Your task to perform on an android device: allow cookies in the chrome app Image 0: 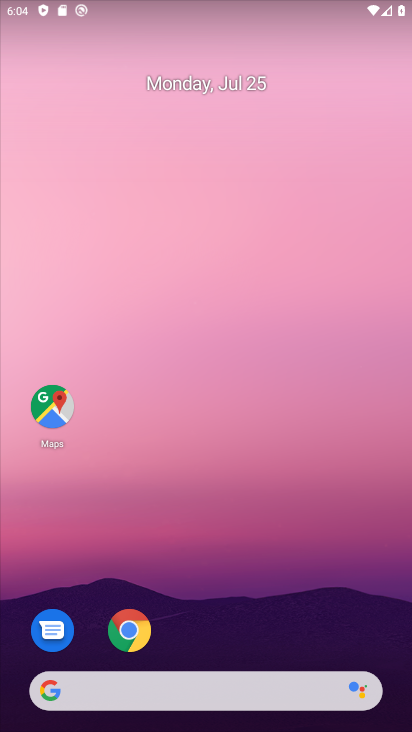
Step 0: click (126, 630)
Your task to perform on an android device: allow cookies in the chrome app Image 1: 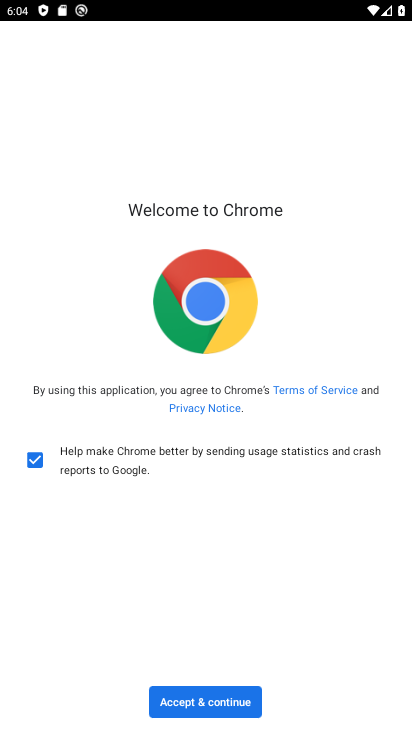
Step 1: click (190, 695)
Your task to perform on an android device: allow cookies in the chrome app Image 2: 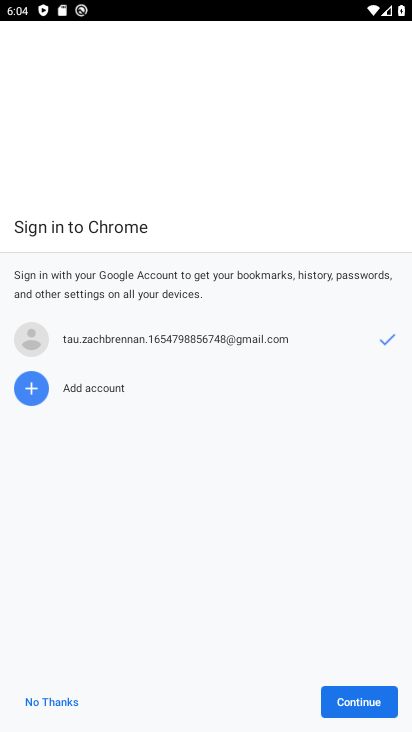
Step 2: click (342, 696)
Your task to perform on an android device: allow cookies in the chrome app Image 3: 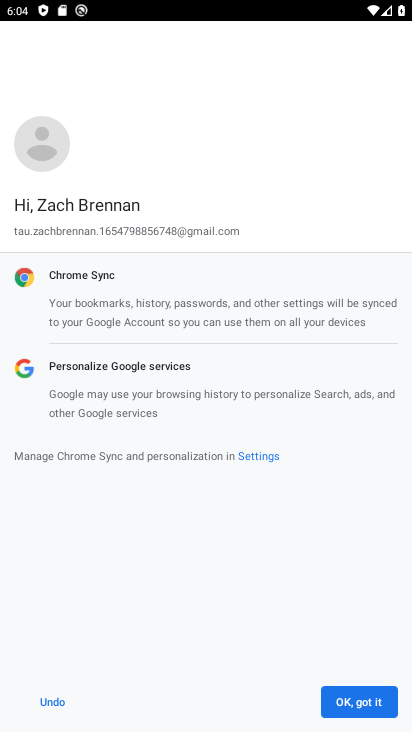
Step 3: click (354, 705)
Your task to perform on an android device: allow cookies in the chrome app Image 4: 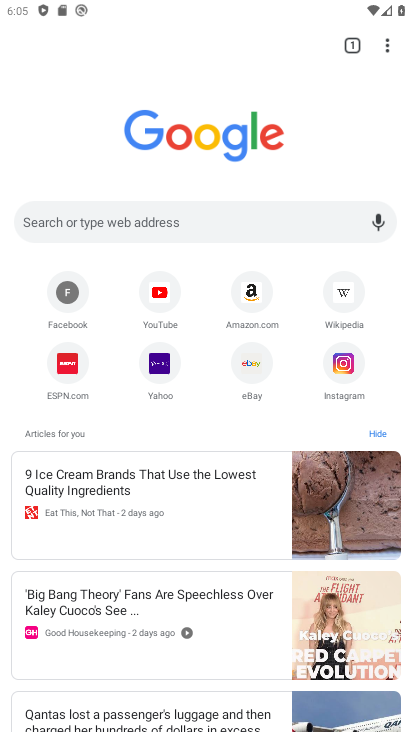
Step 4: click (386, 43)
Your task to perform on an android device: allow cookies in the chrome app Image 5: 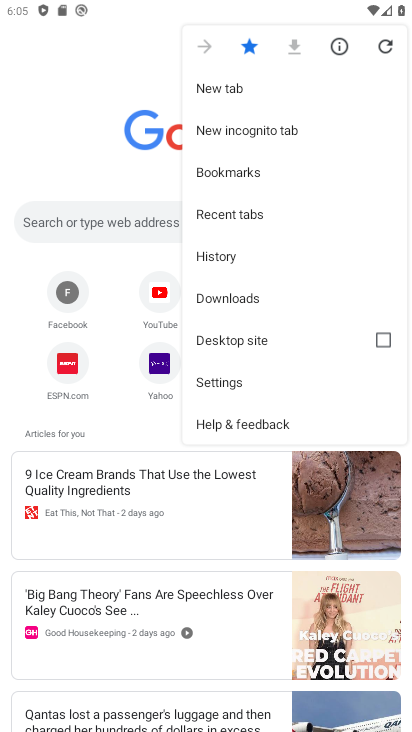
Step 5: click (216, 382)
Your task to perform on an android device: allow cookies in the chrome app Image 6: 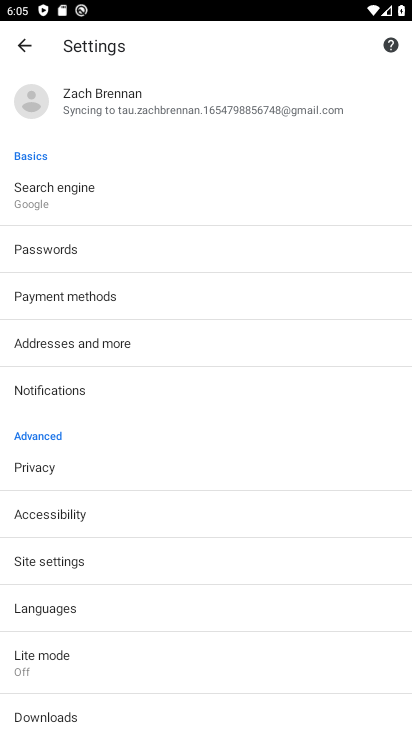
Step 6: drag from (93, 583) to (132, 480)
Your task to perform on an android device: allow cookies in the chrome app Image 7: 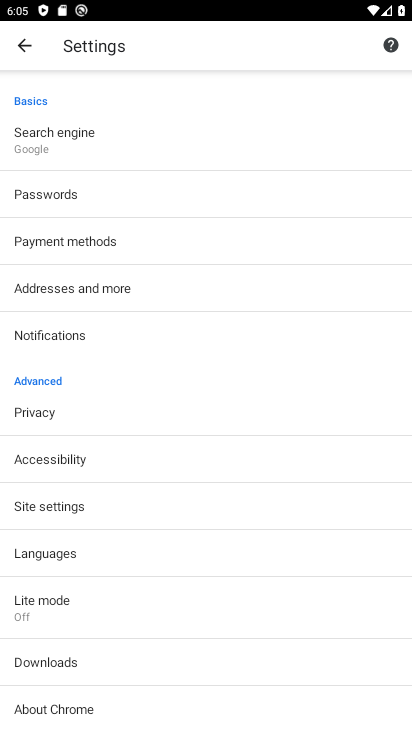
Step 7: click (67, 508)
Your task to perform on an android device: allow cookies in the chrome app Image 8: 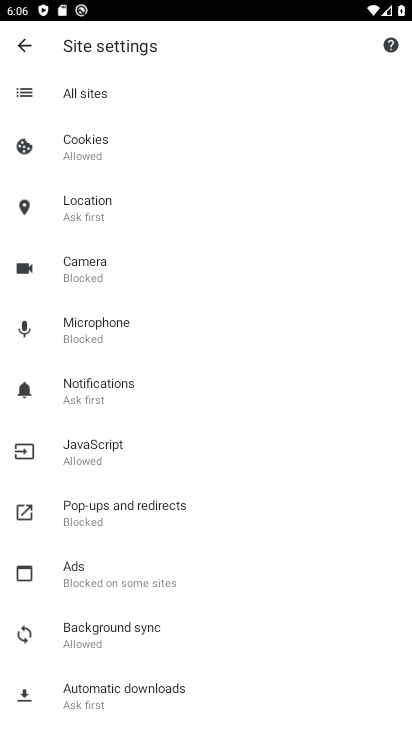
Step 8: click (86, 147)
Your task to perform on an android device: allow cookies in the chrome app Image 9: 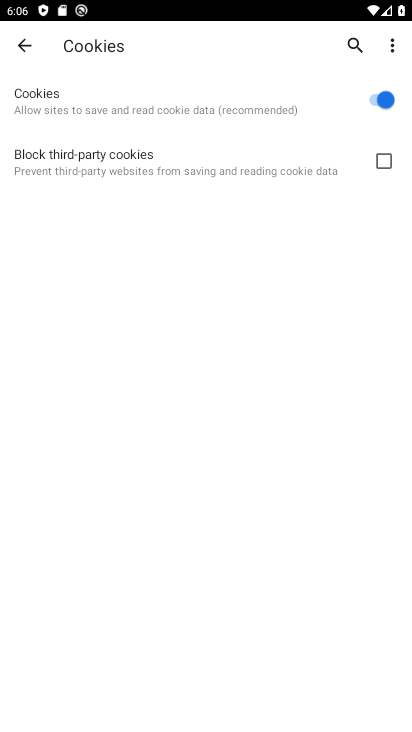
Step 9: click (379, 161)
Your task to perform on an android device: allow cookies in the chrome app Image 10: 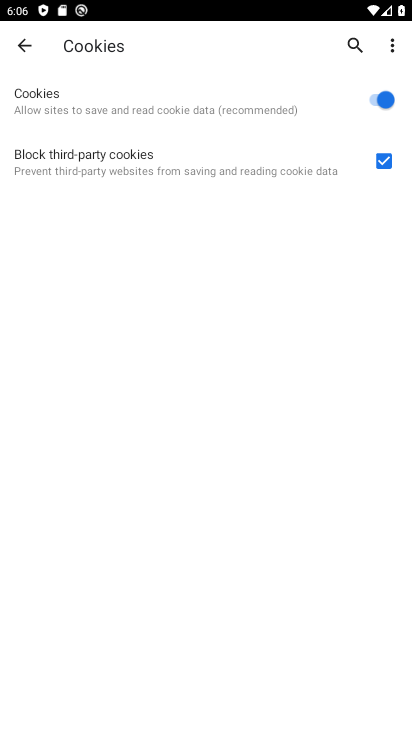
Step 10: task complete